Your task to perform on an android device: Open eBay Image 0: 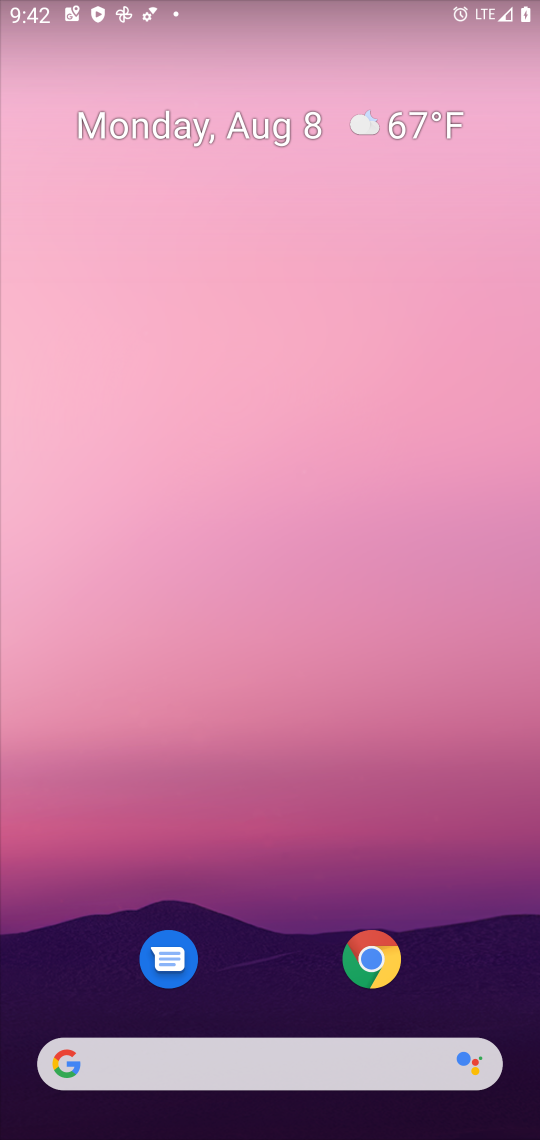
Step 0: drag from (464, 1024) to (184, 45)
Your task to perform on an android device: Open eBay Image 1: 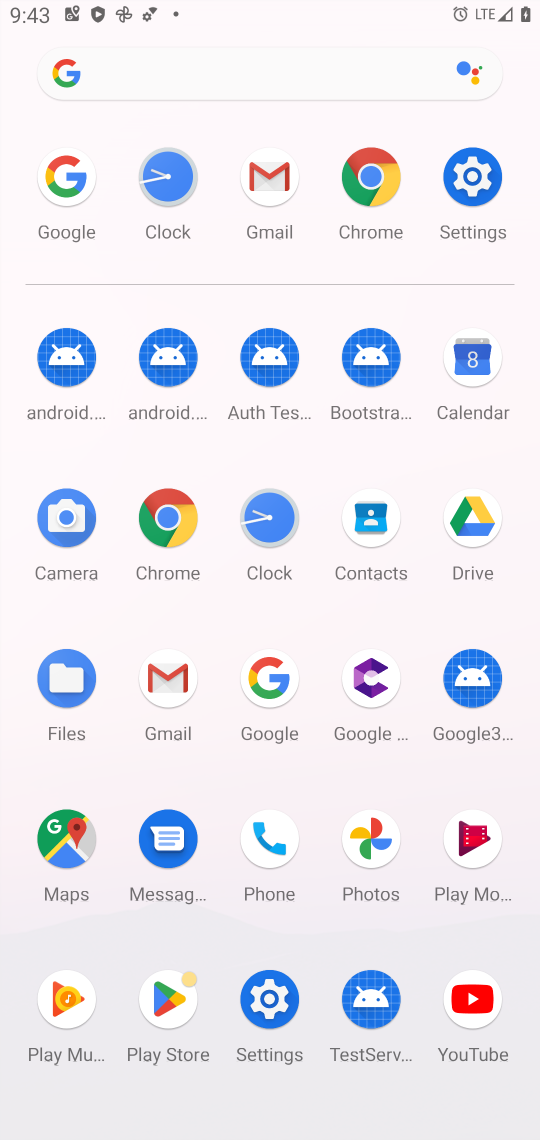
Step 1: click (262, 689)
Your task to perform on an android device: Open eBay Image 2: 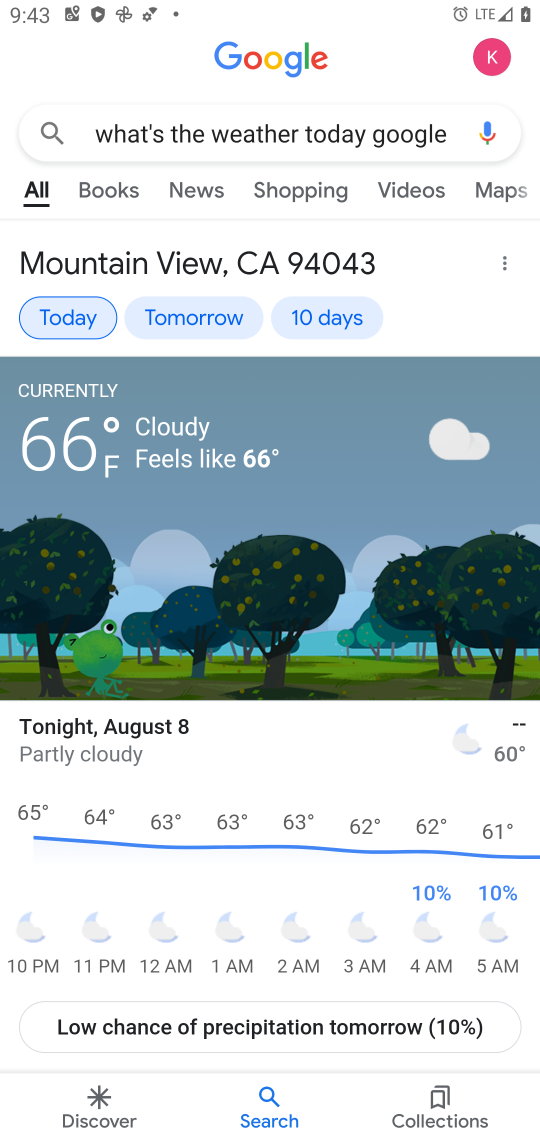
Step 2: press back button
Your task to perform on an android device: Open eBay Image 3: 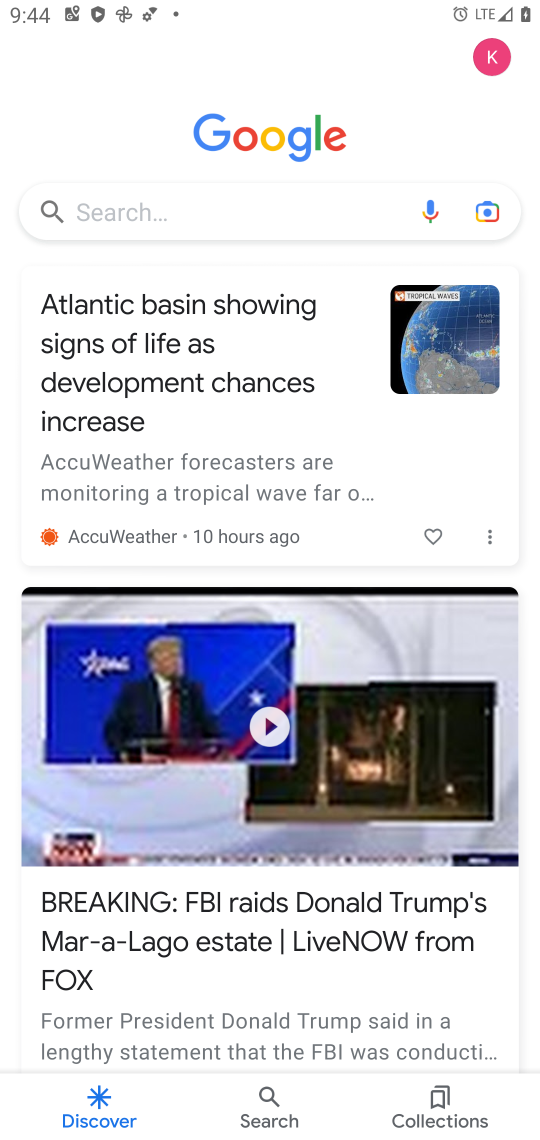
Step 3: click (155, 209)
Your task to perform on an android device: Open eBay Image 4: 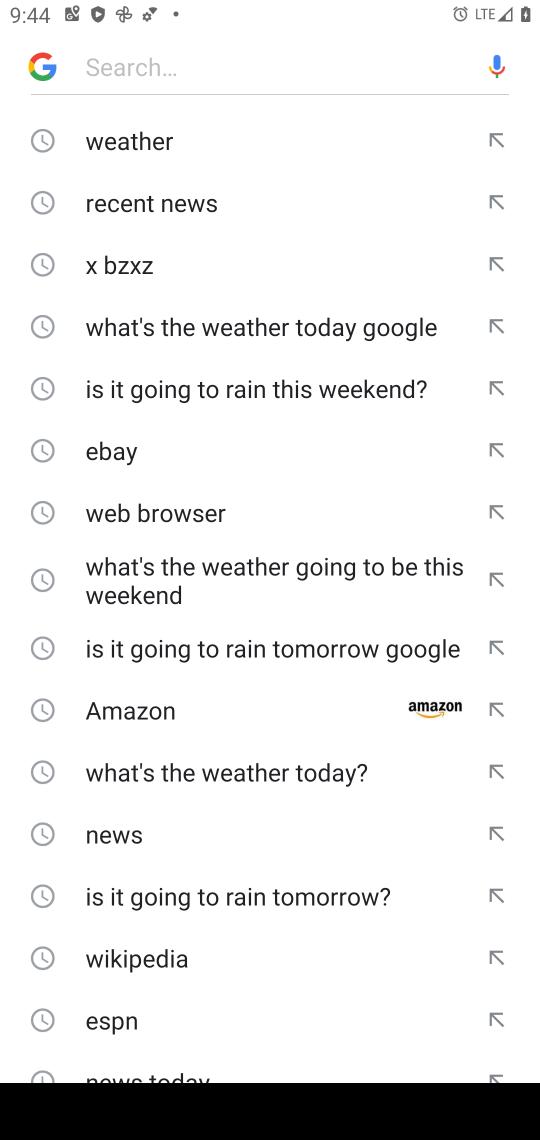
Step 4: click (121, 459)
Your task to perform on an android device: Open eBay Image 5: 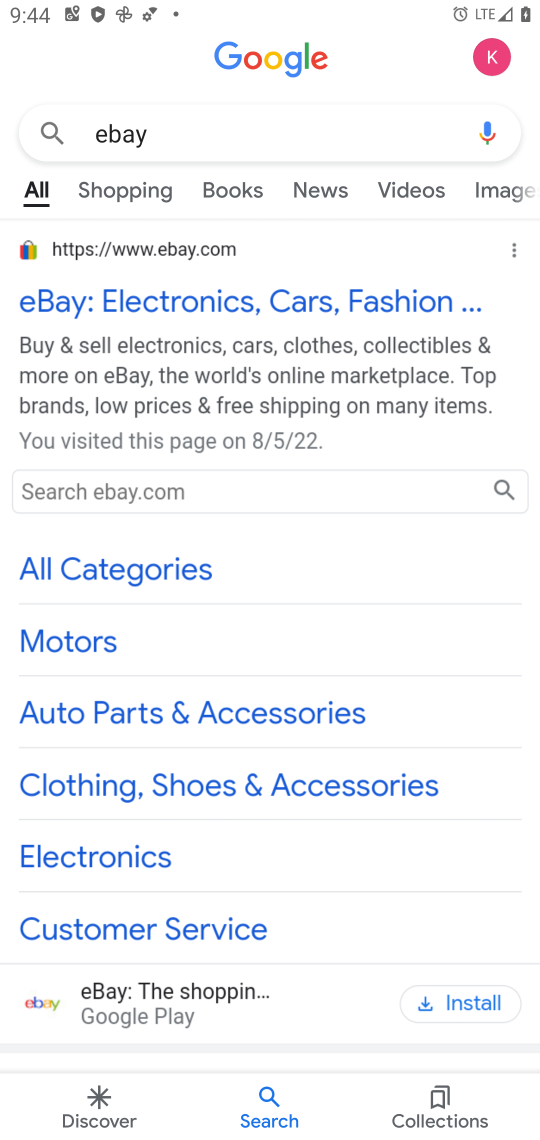
Step 5: task complete